Your task to perform on an android device: Play the last video I watched on Youtube Image 0: 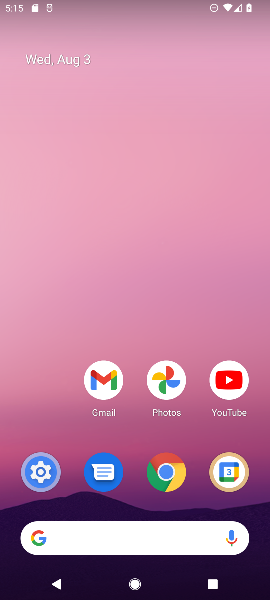
Step 0: drag from (198, 503) to (100, 61)
Your task to perform on an android device: Play the last video I watched on Youtube Image 1: 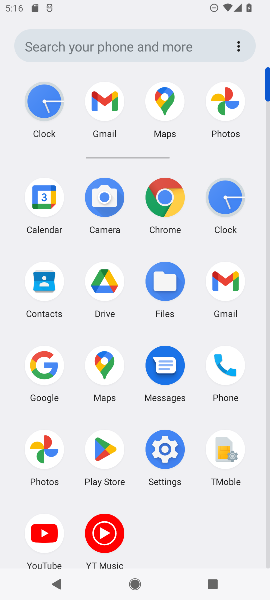
Step 1: click (39, 538)
Your task to perform on an android device: Play the last video I watched on Youtube Image 2: 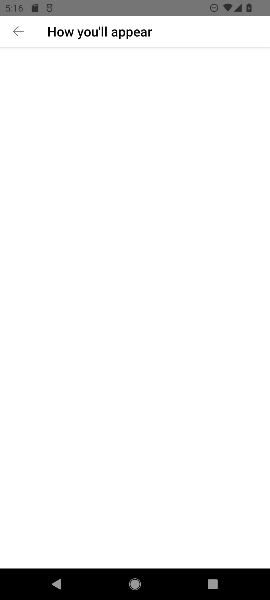
Step 2: task complete